Your task to perform on an android device: Open settings Image 0: 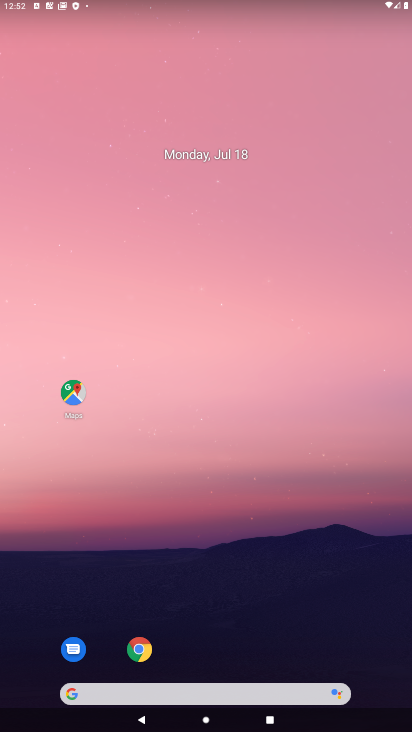
Step 0: drag from (367, 651) to (333, 140)
Your task to perform on an android device: Open settings Image 1: 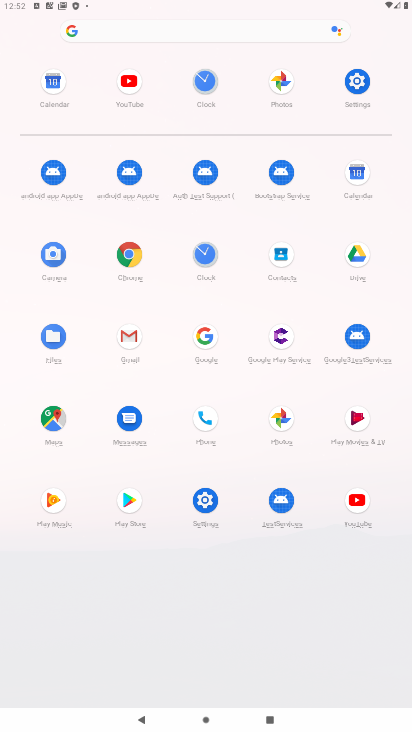
Step 1: click (206, 492)
Your task to perform on an android device: Open settings Image 2: 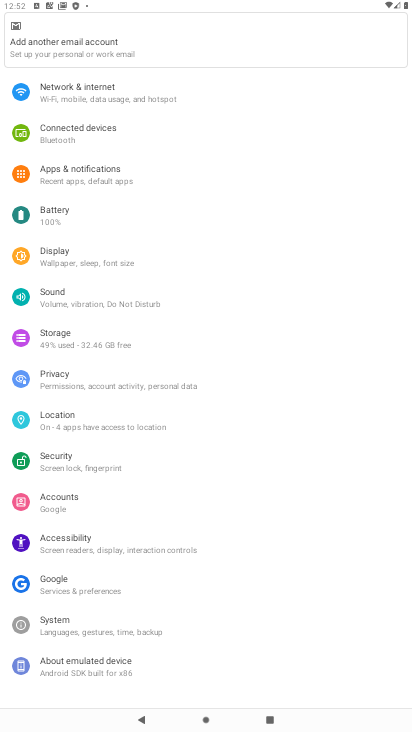
Step 2: task complete